Your task to perform on an android device: turn on showing notifications on the lock screen Image 0: 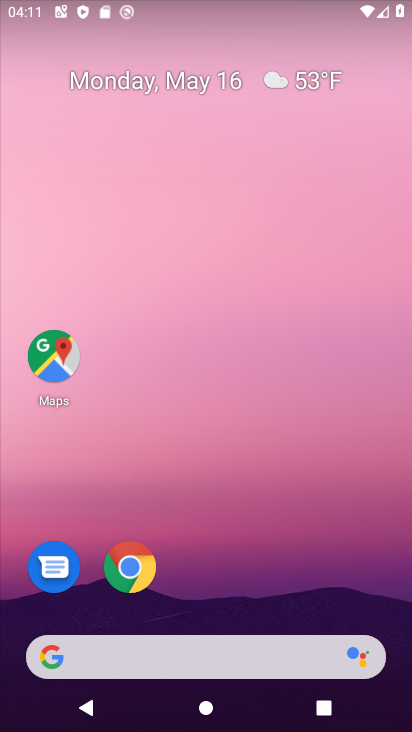
Step 0: drag from (304, 673) to (338, 108)
Your task to perform on an android device: turn on showing notifications on the lock screen Image 1: 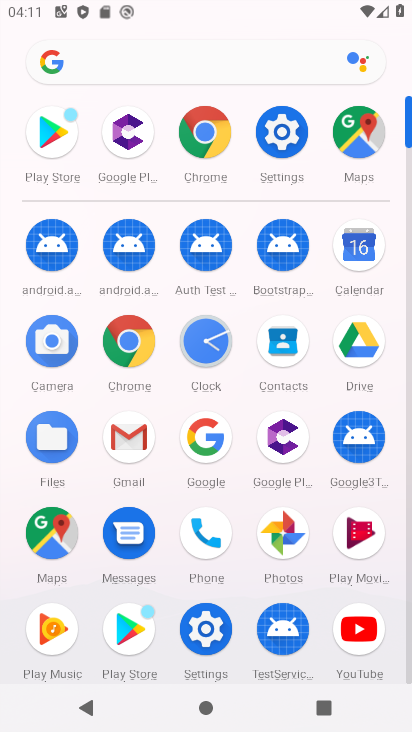
Step 1: click (279, 129)
Your task to perform on an android device: turn on showing notifications on the lock screen Image 2: 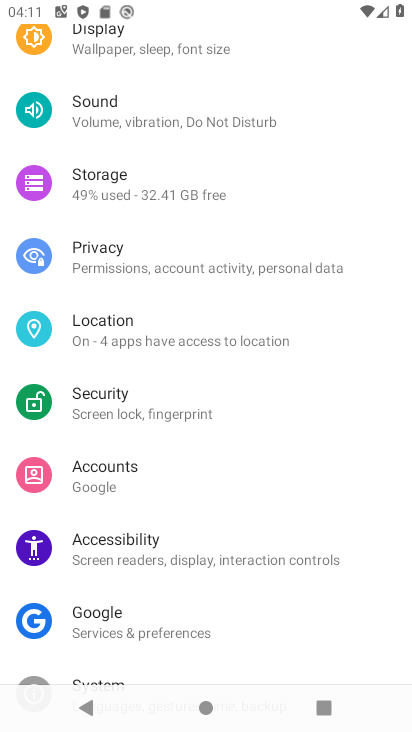
Step 2: drag from (318, 641) to (322, 163)
Your task to perform on an android device: turn on showing notifications on the lock screen Image 3: 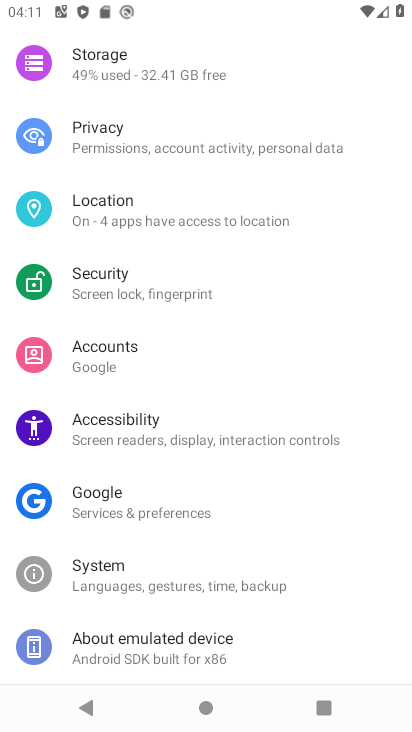
Step 3: drag from (238, 171) to (232, 660)
Your task to perform on an android device: turn on showing notifications on the lock screen Image 4: 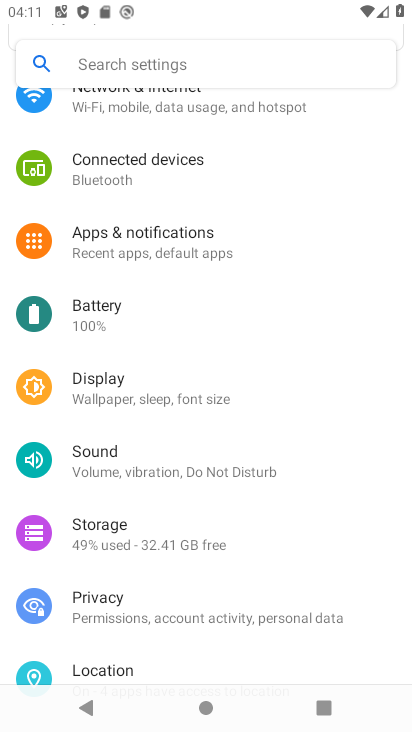
Step 4: click (154, 242)
Your task to perform on an android device: turn on showing notifications on the lock screen Image 5: 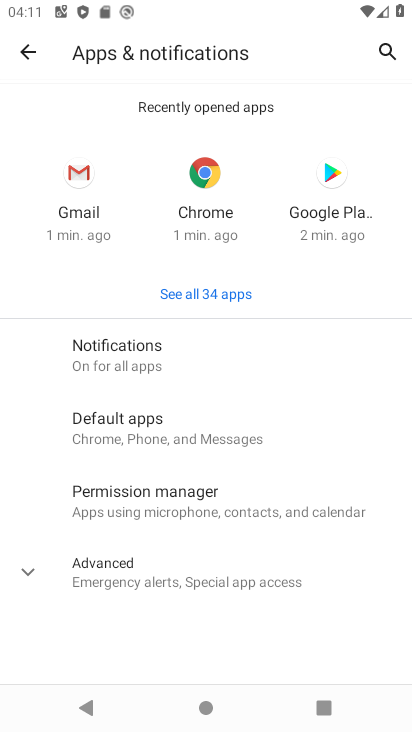
Step 5: click (158, 355)
Your task to perform on an android device: turn on showing notifications on the lock screen Image 6: 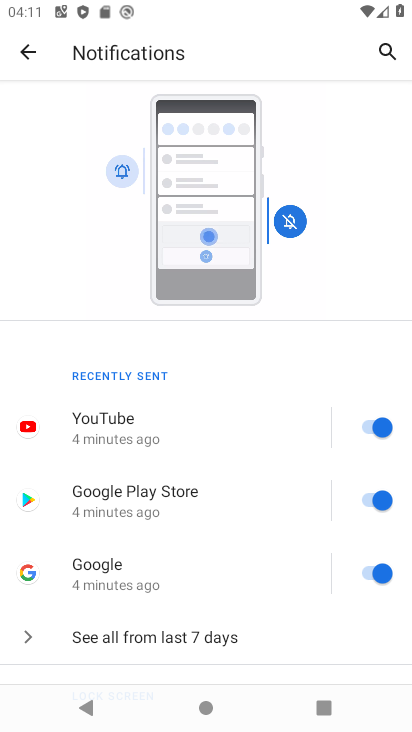
Step 6: drag from (239, 655) to (297, 120)
Your task to perform on an android device: turn on showing notifications on the lock screen Image 7: 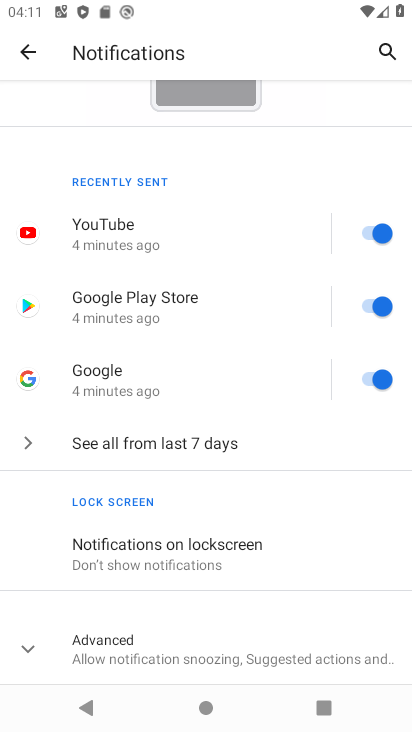
Step 7: click (230, 552)
Your task to perform on an android device: turn on showing notifications on the lock screen Image 8: 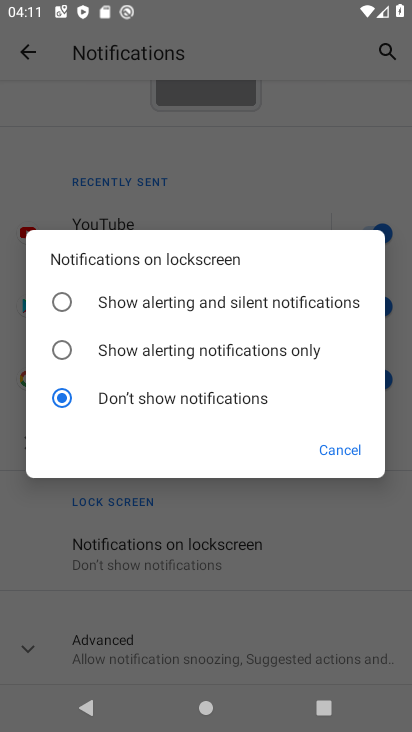
Step 8: click (67, 300)
Your task to perform on an android device: turn on showing notifications on the lock screen Image 9: 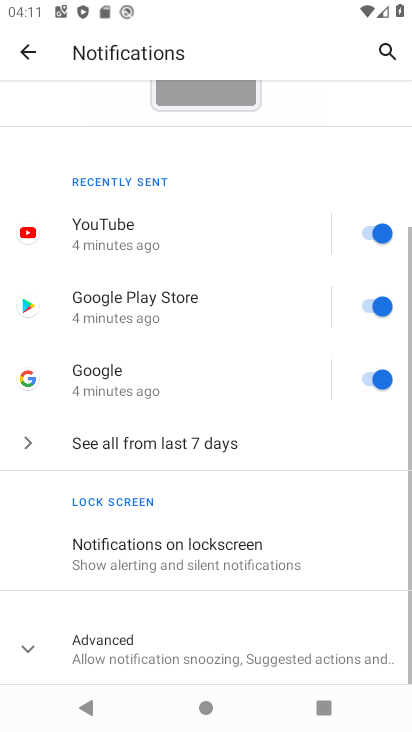
Step 9: task complete